Your task to perform on an android device: check data usage Image 0: 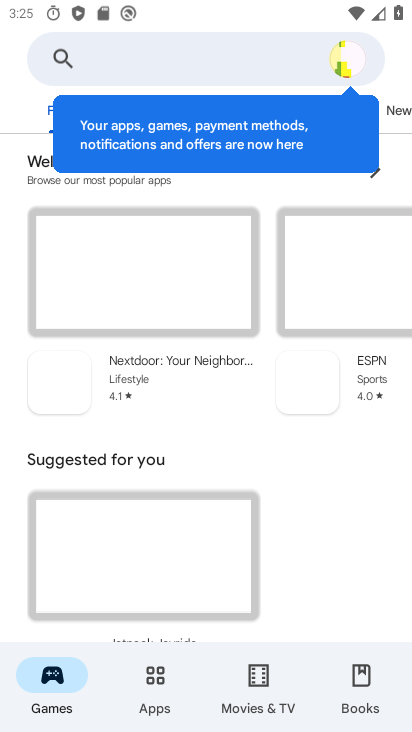
Step 0: press back button
Your task to perform on an android device: check data usage Image 1: 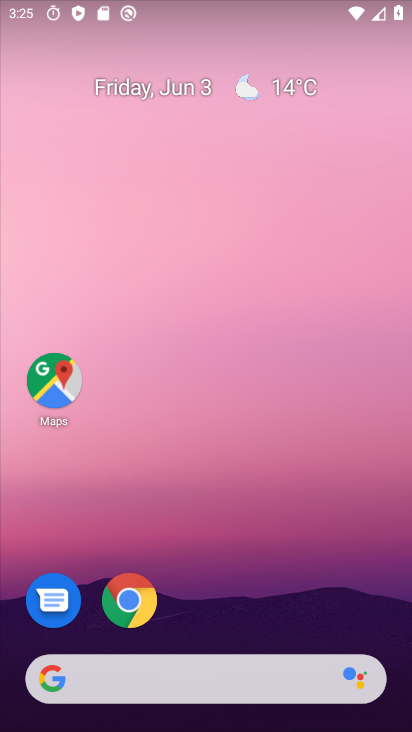
Step 1: drag from (293, 426) to (278, 44)
Your task to perform on an android device: check data usage Image 2: 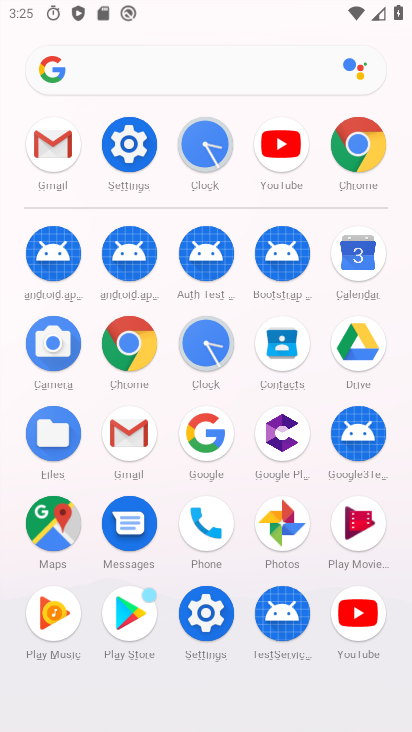
Step 2: click (124, 141)
Your task to perform on an android device: check data usage Image 3: 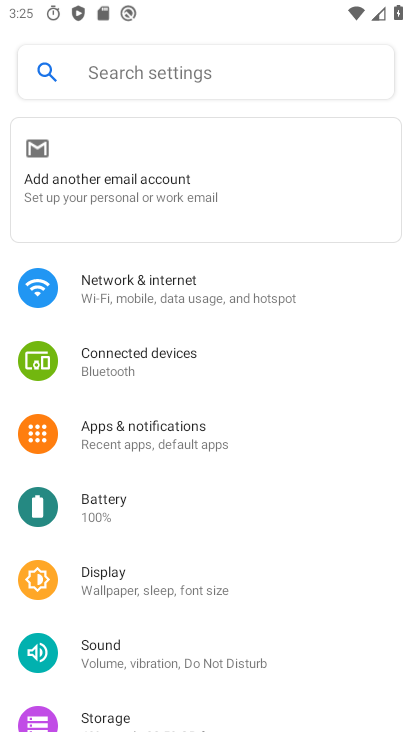
Step 3: click (208, 293)
Your task to perform on an android device: check data usage Image 4: 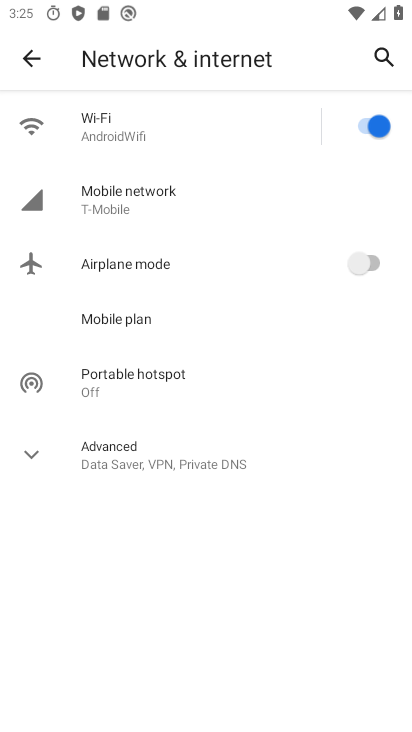
Step 4: click (165, 202)
Your task to perform on an android device: check data usage Image 5: 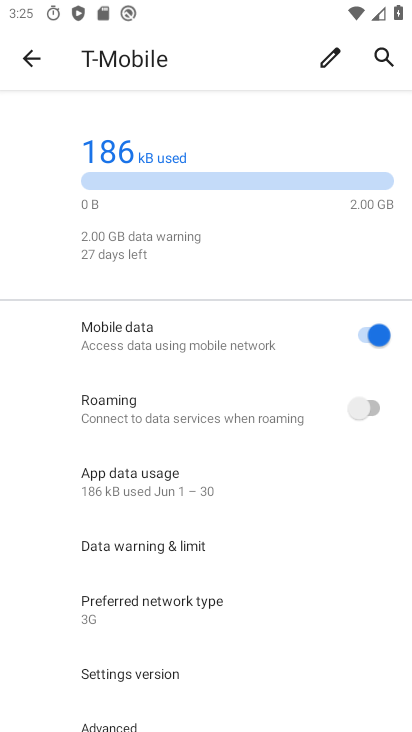
Step 5: task complete